Your task to perform on an android device: Clear the cart on walmart. Add "acer nitro" to the cart on walmart Image 0: 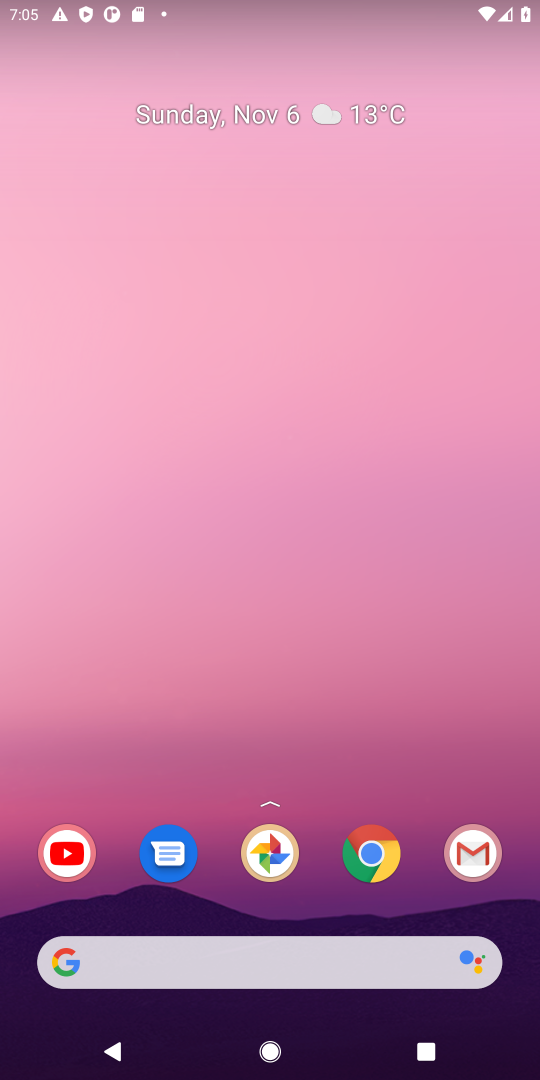
Step 0: click (376, 857)
Your task to perform on an android device: Clear the cart on walmart. Add "acer nitro" to the cart on walmart Image 1: 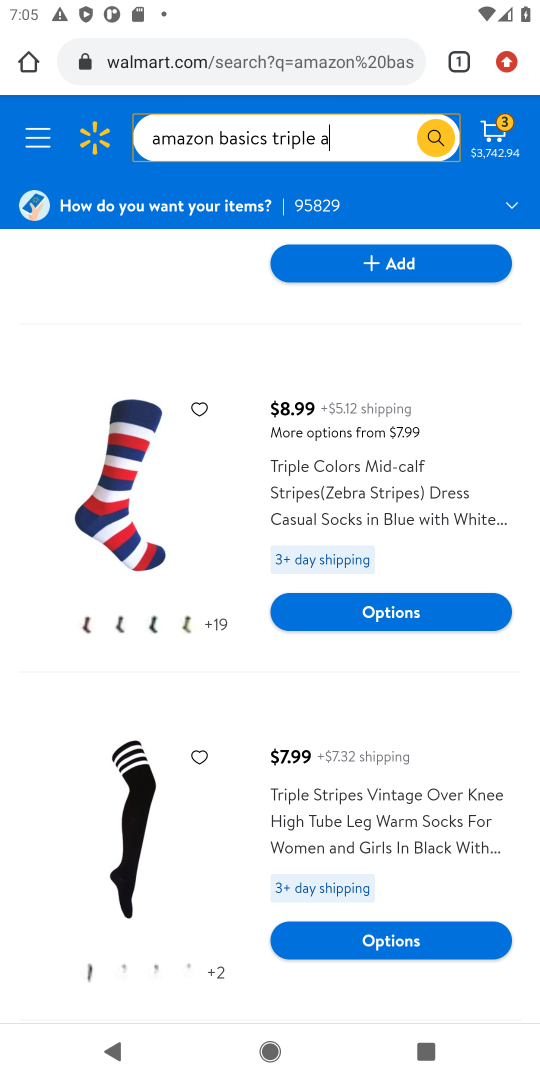
Step 1: click (495, 138)
Your task to perform on an android device: Clear the cart on walmart. Add "acer nitro" to the cart on walmart Image 2: 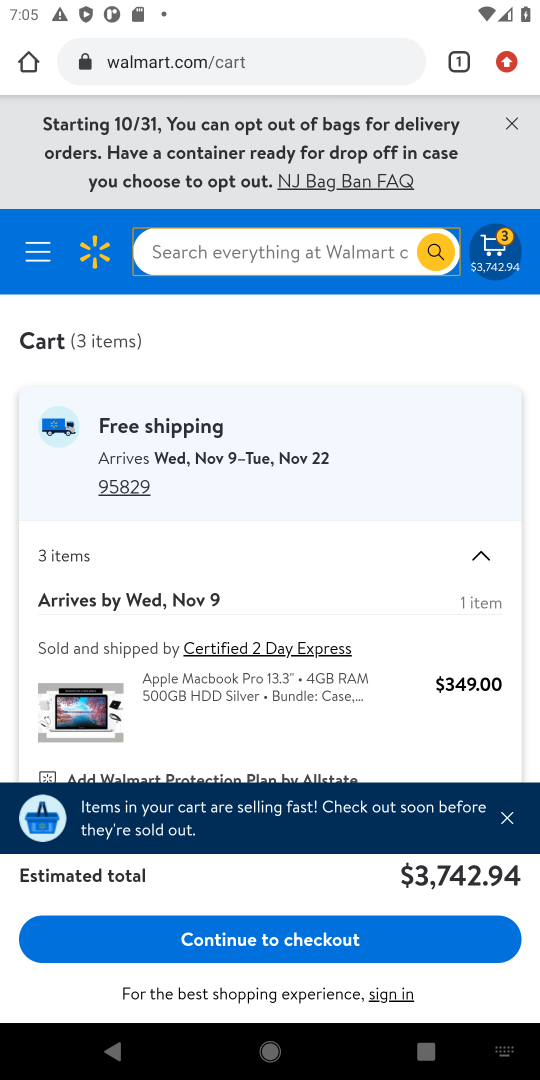
Step 2: click (505, 816)
Your task to perform on an android device: Clear the cart on walmart. Add "acer nitro" to the cart on walmart Image 3: 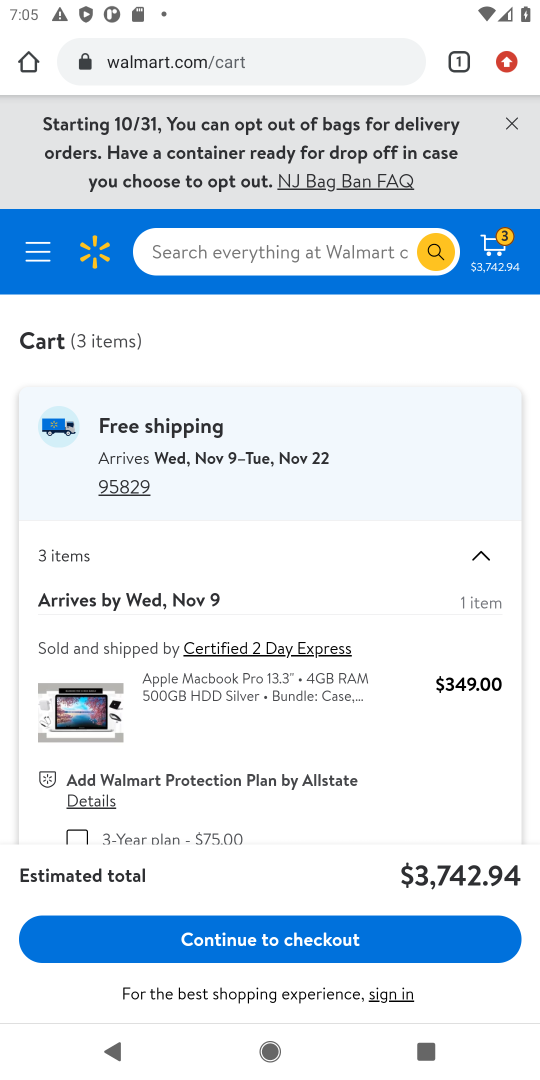
Step 3: drag from (424, 820) to (388, 464)
Your task to perform on an android device: Clear the cart on walmart. Add "acer nitro" to the cart on walmart Image 4: 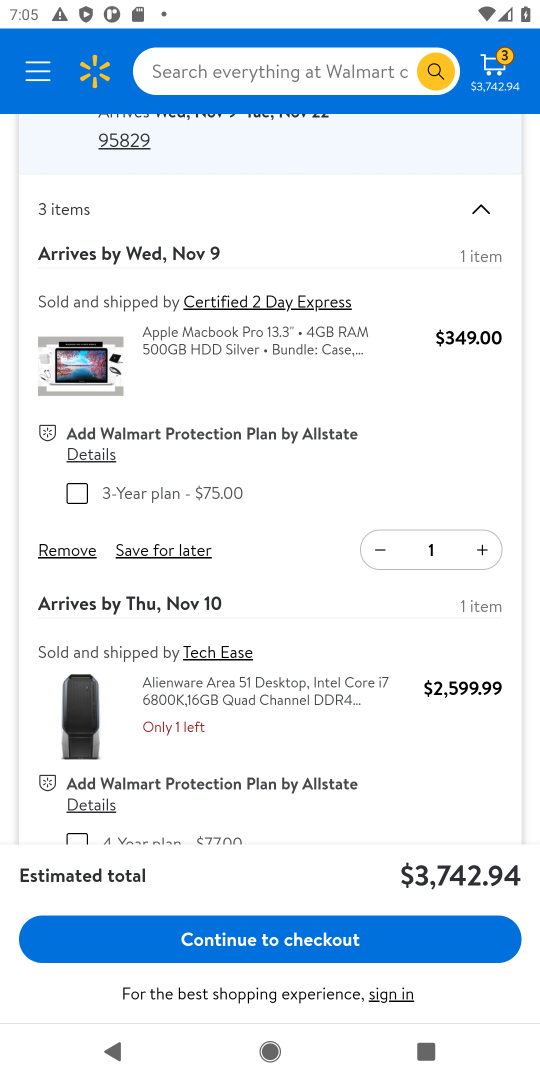
Step 4: click (56, 553)
Your task to perform on an android device: Clear the cart on walmart. Add "acer nitro" to the cart on walmart Image 5: 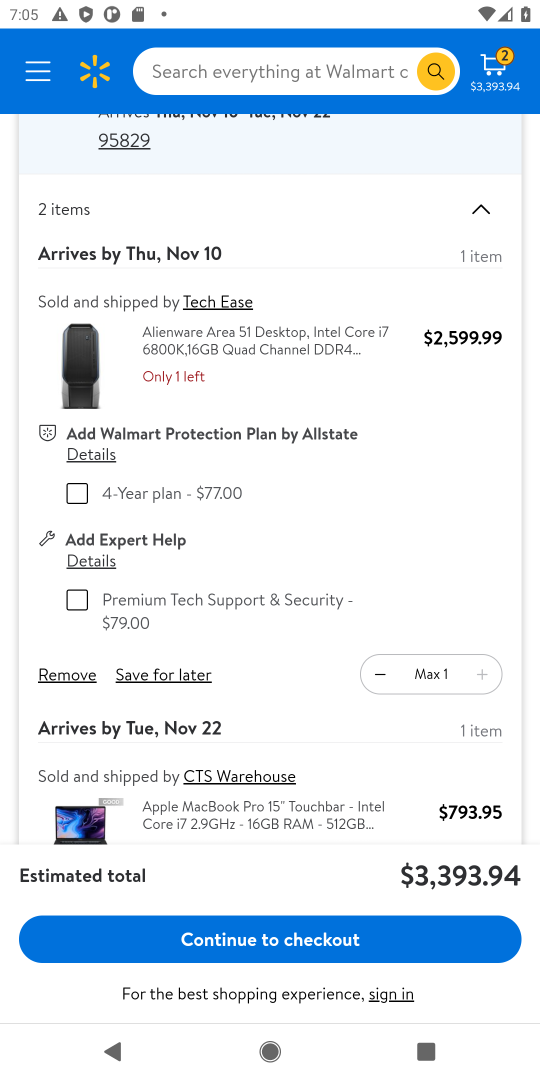
Step 5: click (44, 671)
Your task to perform on an android device: Clear the cart on walmart. Add "acer nitro" to the cart on walmart Image 6: 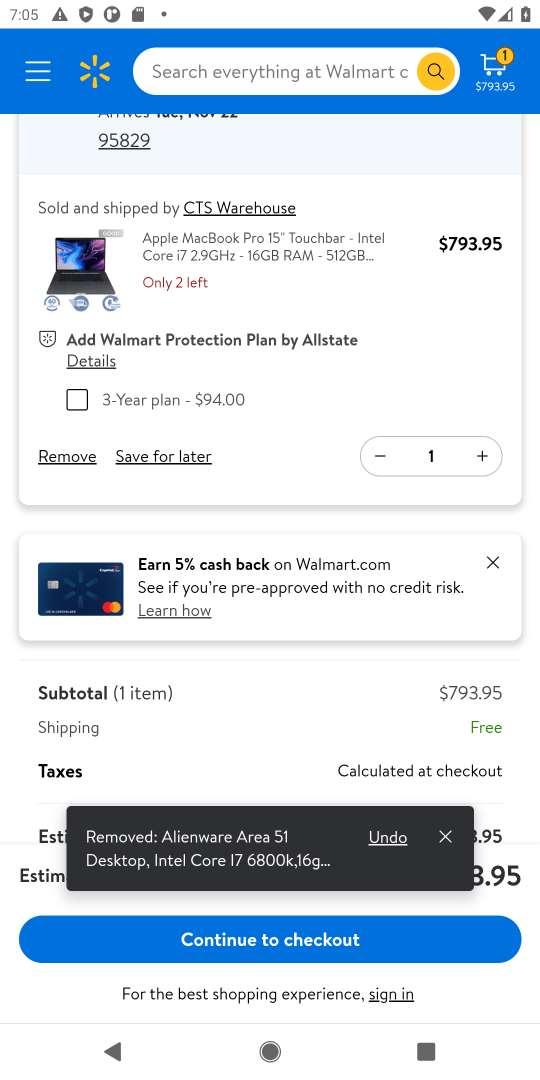
Step 6: click (55, 462)
Your task to perform on an android device: Clear the cart on walmart. Add "acer nitro" to the cart on walmart Image 7: 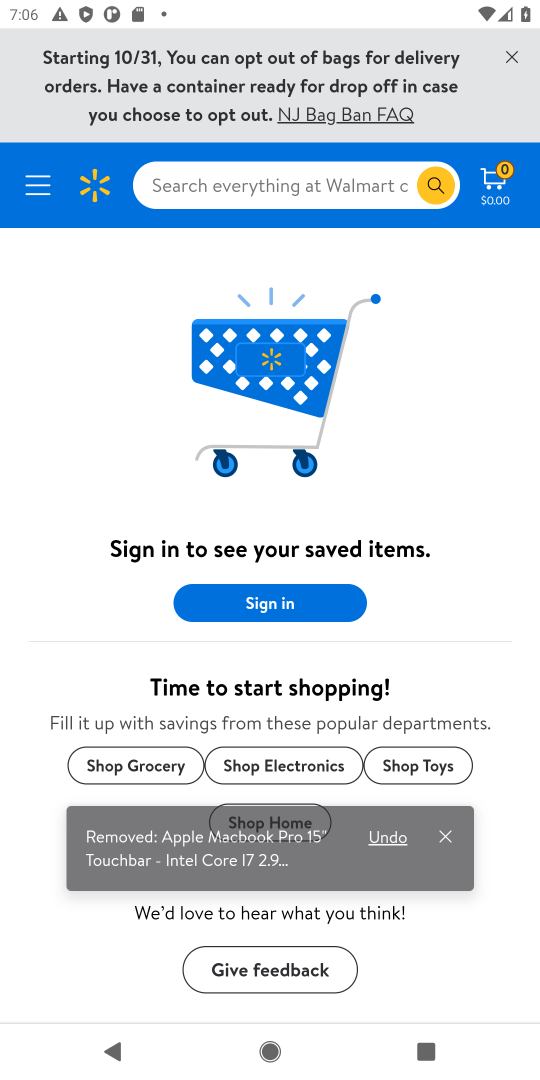
Step 7: click (443, 833)
Your task to perform on an android device: Clear the cart on walmart. Add "acer nitro" to the cart on walmart Image 8: 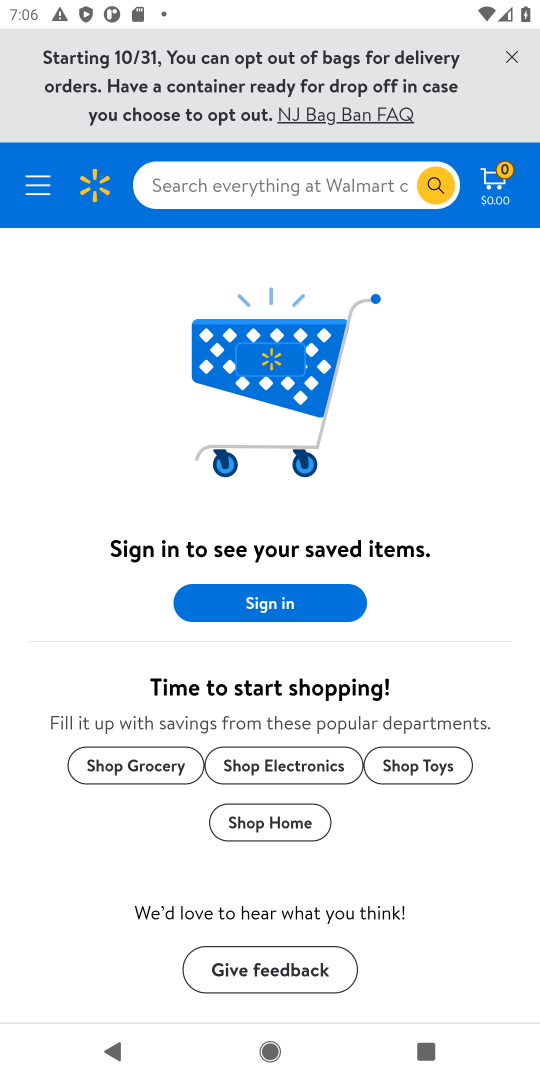
Step 8: click (251, 172)
Your task to perform on an android device: Clear the cart on walmart. Add "acer nitro" to the cart on walmart Image 9: 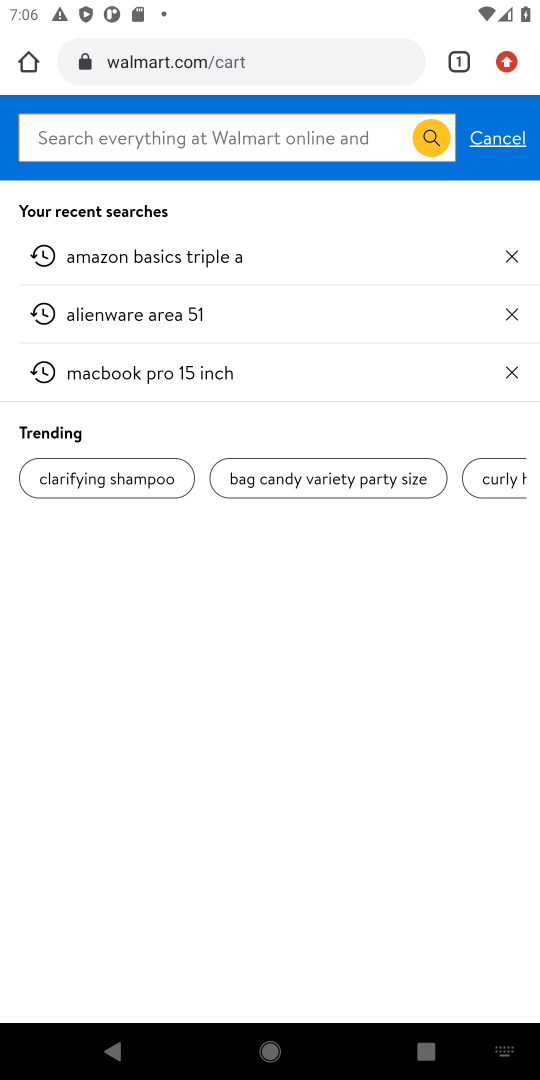
Step 9: type "acer nitro"
Your task to perform on an android device: Clear the cart on walmart. Add "acer nitro" to the cart on walmart Image 10: 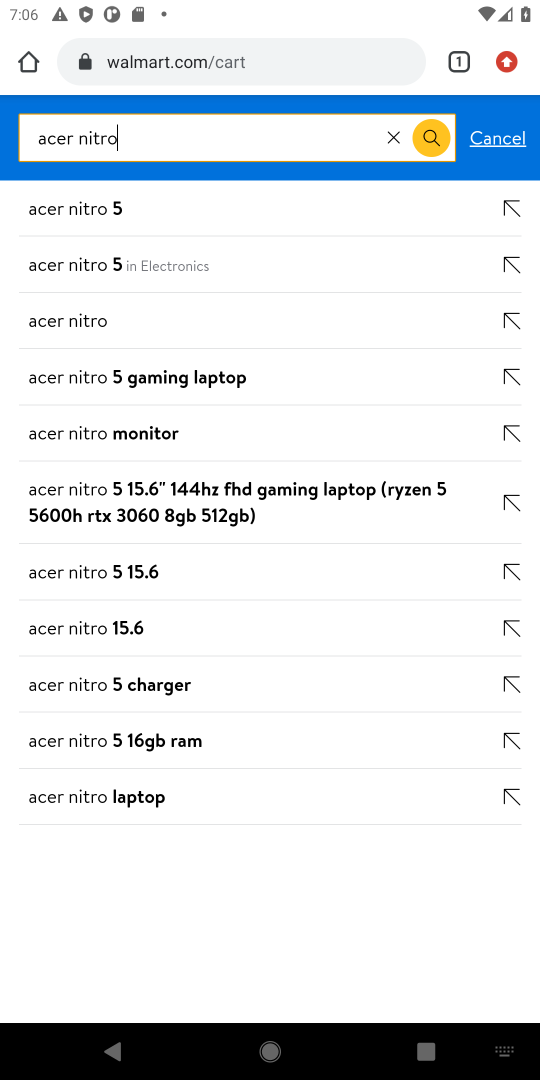
Step 10: click (73, 201)
Your task to perform on an android device: Clear the cart on walmart. Add "acer nitro" to the cart on walmart Image 11: 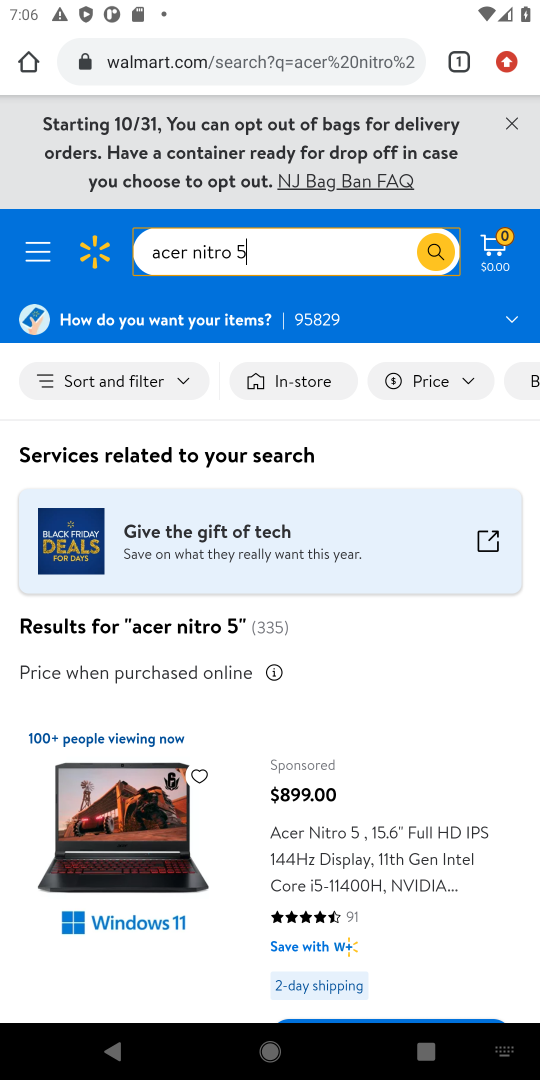
Step 11: click (302, 848)
Your task to perform on an android device: Clear the cart on walmart. Add "acer nitro" to the cart on walmart Image 12: 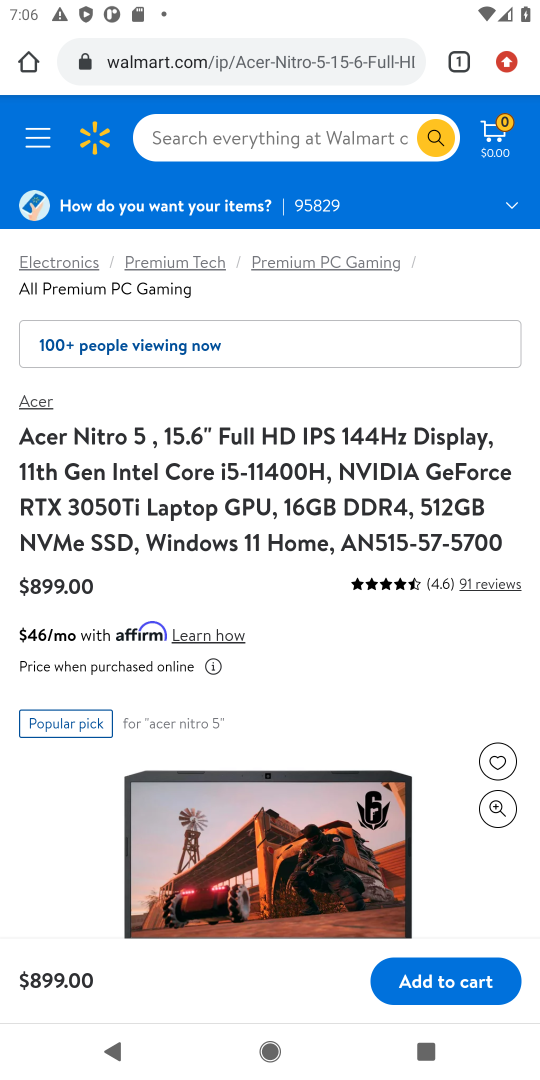
Step 12: click (434, 982)
Your task to perform on an android device: Clear the cart on walmart. Add "acer nitro" to the cart on walmart Image 13: 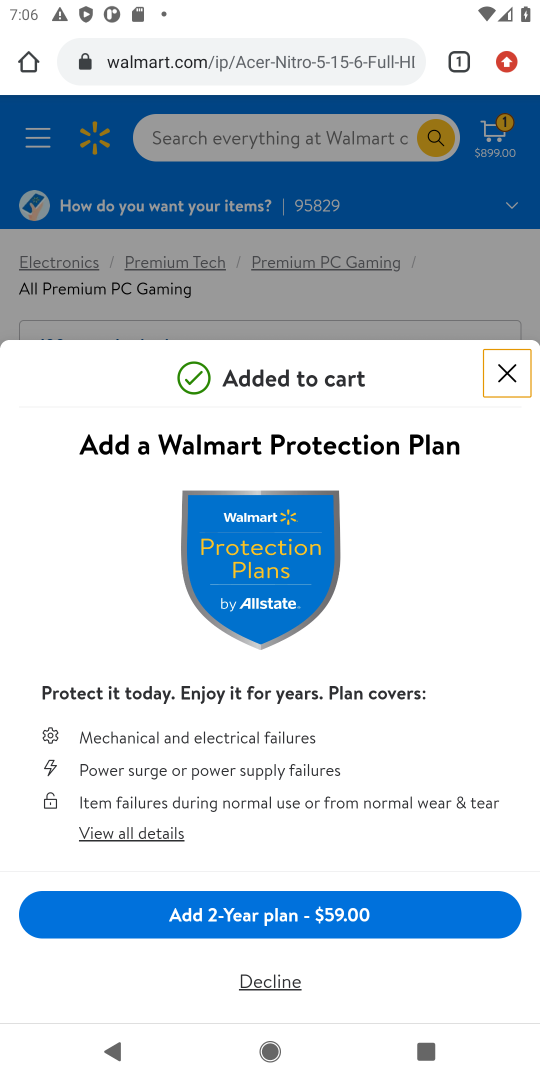
Step 13: click (261, 983)
Your task to perform on an android device: Clear the cart on walmart. Add "acer nitro" to the cart on walmart Image 14: 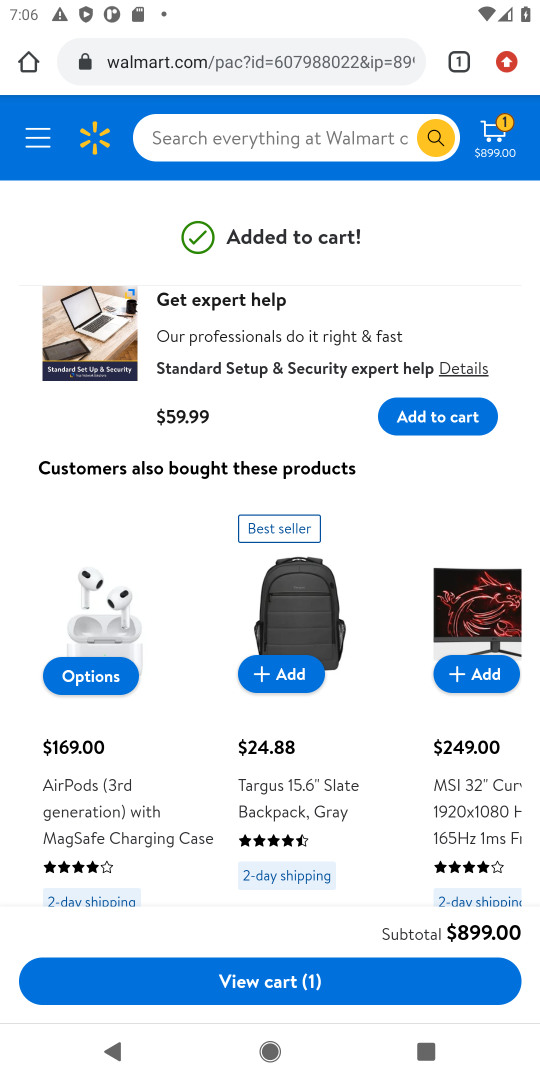
Step 14: click (504, 131)
Your task to perform on an android device: Clear the cart on walmart. Add "acer nitro" to the cart on walmart Image 15: 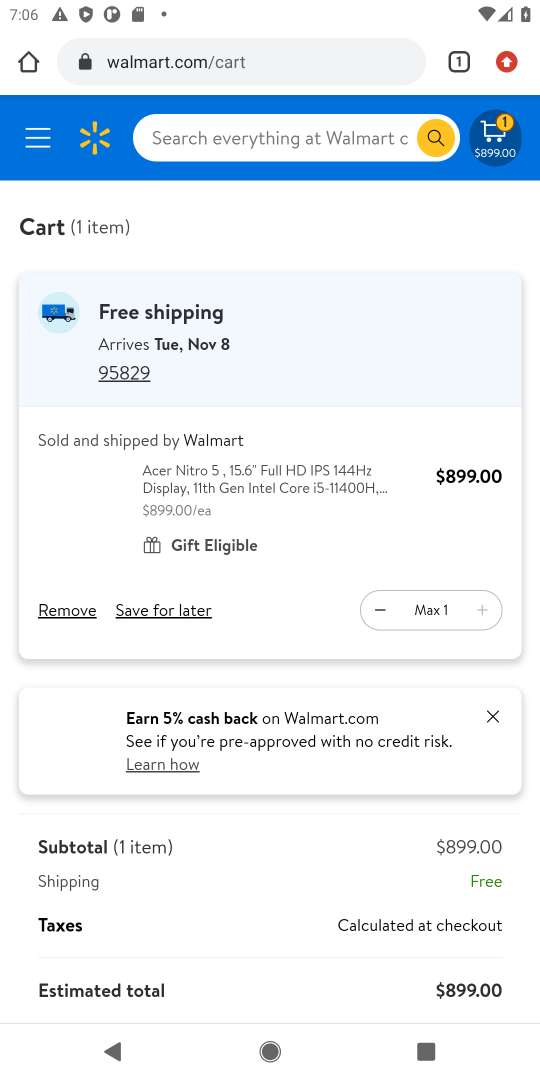
Step 15: task complete